Your task to perform on an android device: turn on the 12-hour format for clock Image 0: 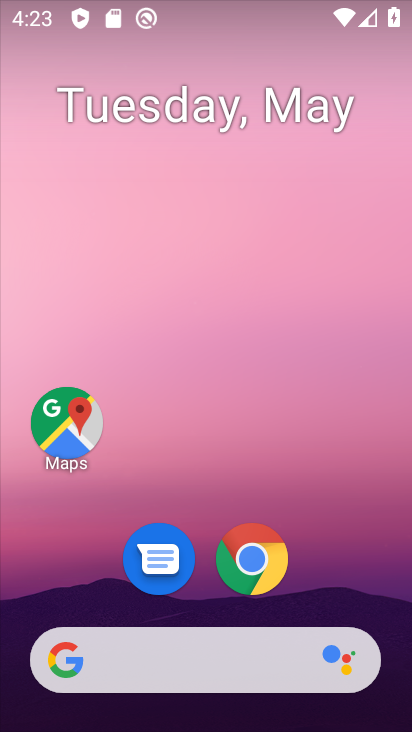
Step 0: drag from (331, 559) to (264, 68)
Your task to perform on an android device: turn on the 12-hour format for clock Image 1: 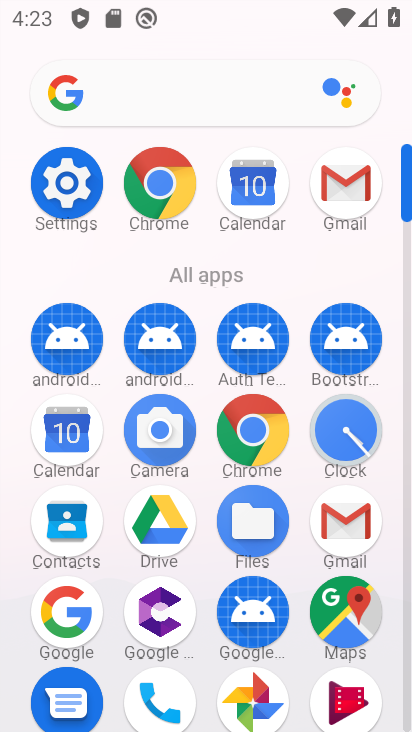
Step 1: click (350, 422)
Your task to perform on an android device: turn on the 12-hour format for clock Image 2: 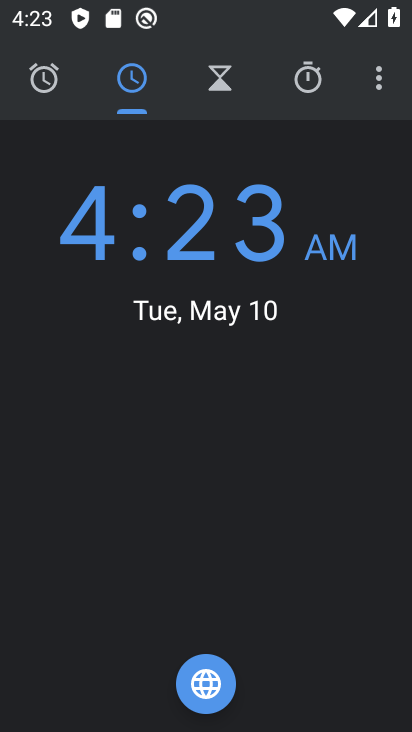
Step 2: click (396, 84)
Your task to perform on an android device: turn on the 12-hour format for clock Image 3: 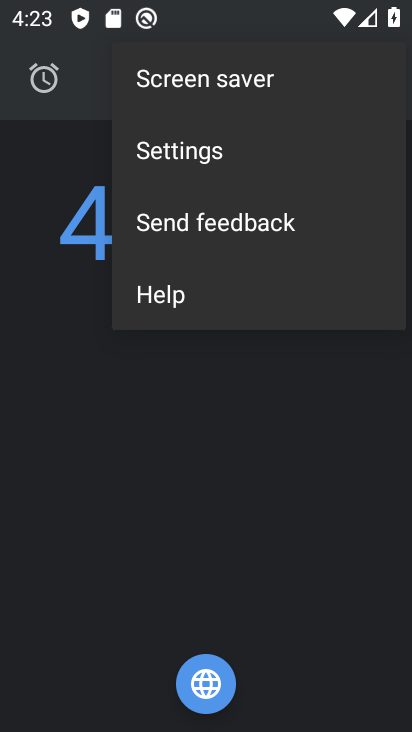
Step 3: click (192, 142)
Your task to perform on an android device: turn on the 12-hour format for clock Image 4: 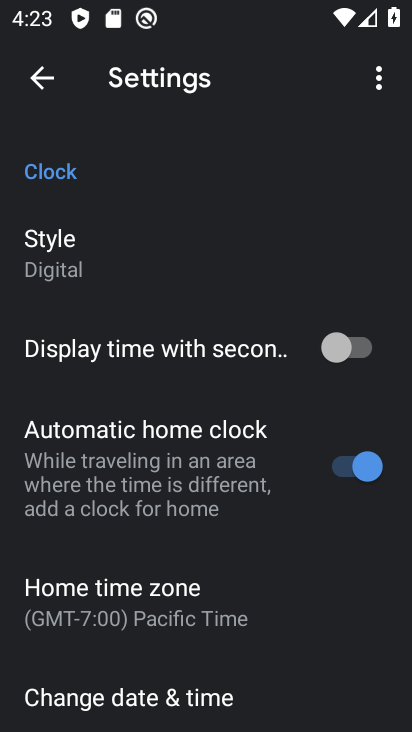
Step 4: drag from (190, 657) to (165, 389)
Your task to perform on an android device: turn on the 12-hour format for clock Image 5: 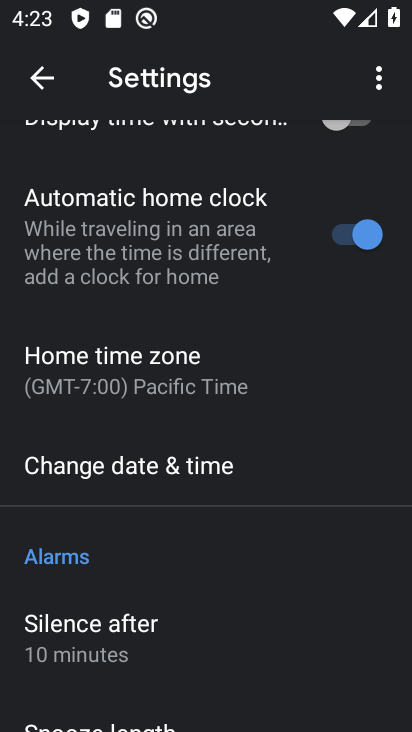
Step 5: click (145, 447)
Your task to perform on an android device: turn on the 12-hour format for clock Image 6: 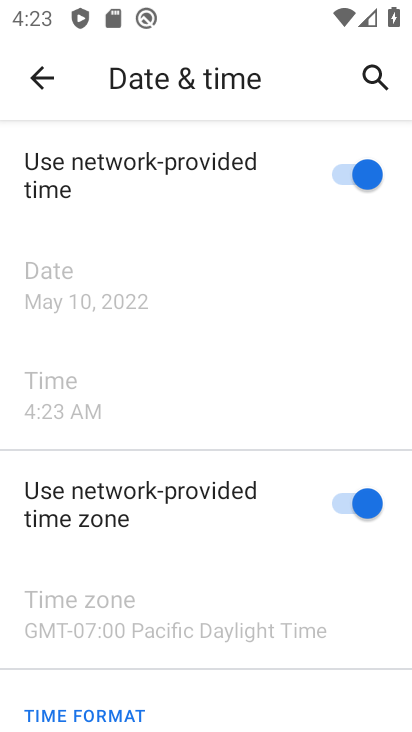
Step 6: task complete